Your task to perform on an android device: See recent photos Image 0: 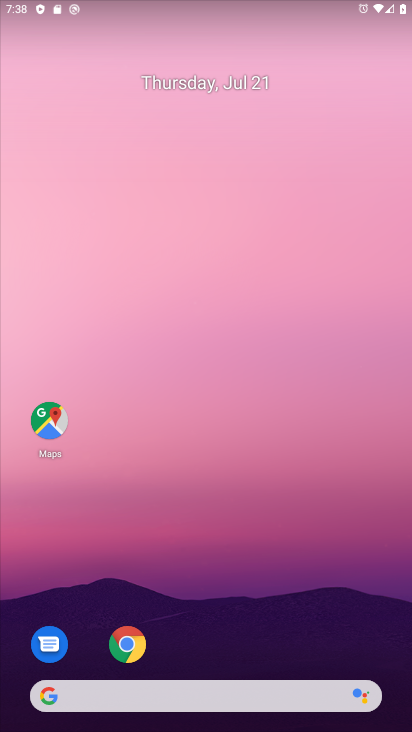
Step 0: drag from (349, 581) to (337, 229)
Your task to perform on an android device: See recent photos Image 1: 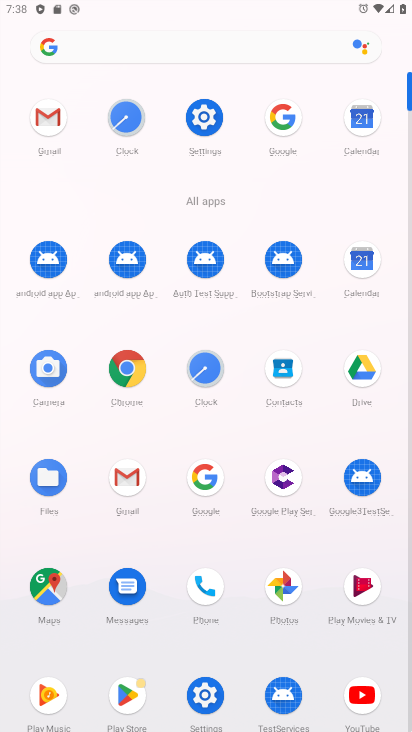
Step 1: click (280, 582)
Your task to perform on an android device: See recent photos Image 2: 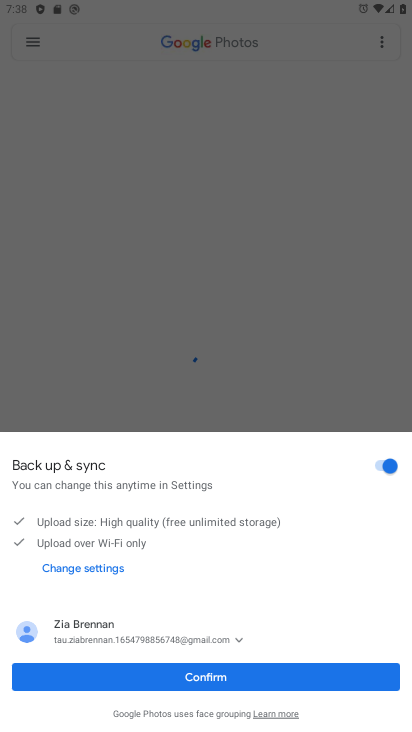
Step 2: click (277, 664)
Your task to perform on an android device: See recent photos Image 3: 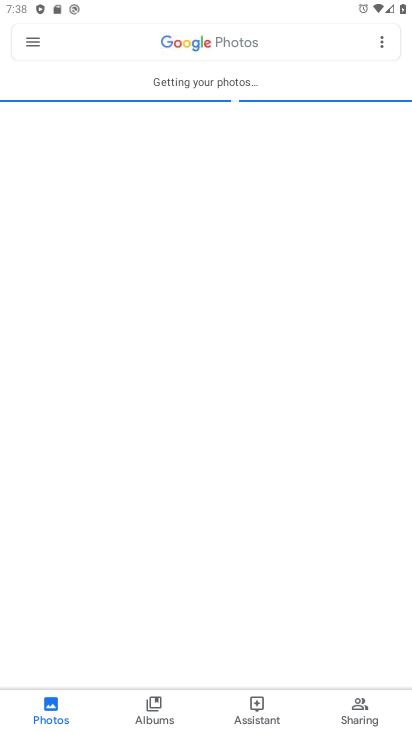
Step 3: click (153, 702)
Your task to perform on an android device: See recent photos Image 4: 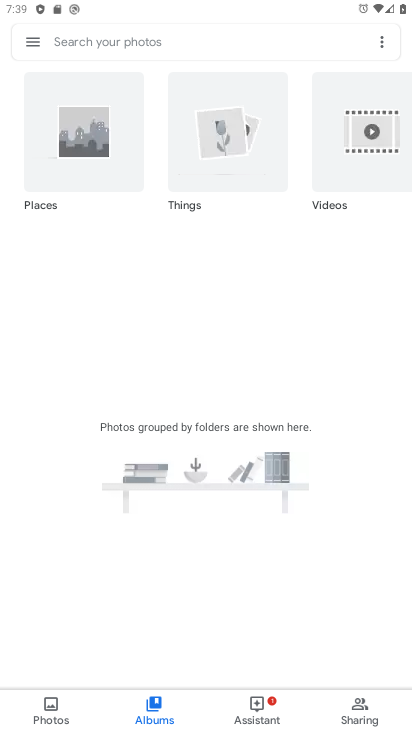
Step 4: task complete